Your task to perform on an android device: Open calendar and show me the third week of next month Image 0: 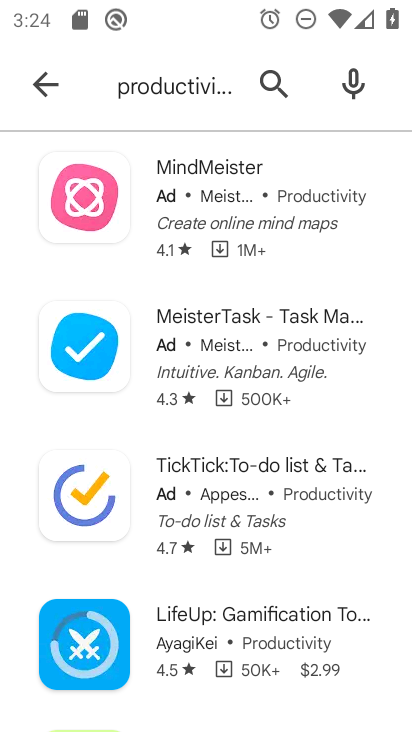
Step 0: press home button
Your task to perform on an android device: Open calendar and show me the third week of next month Image 1: 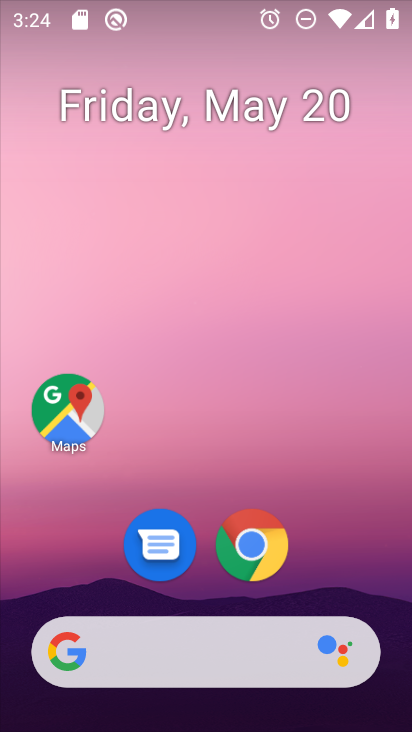
Step 1: click (197, 113)
Your task to perform on an android device: Open calendar and show me the third week of next month Image 2: 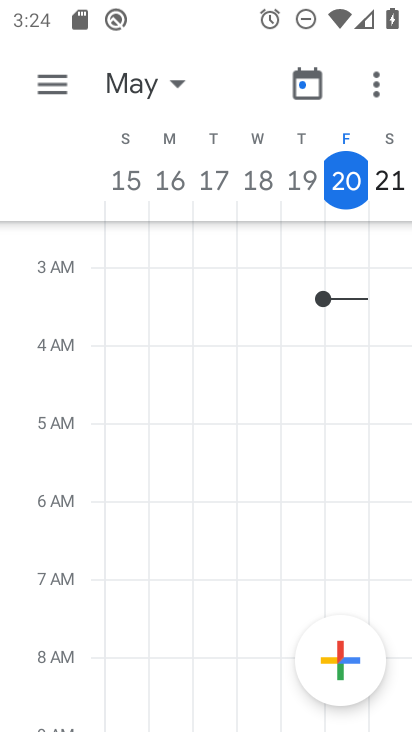
Step 2: click (274, 113)
Your task to perform on an android device: Open calendar and show me the third week of next month Image 3: 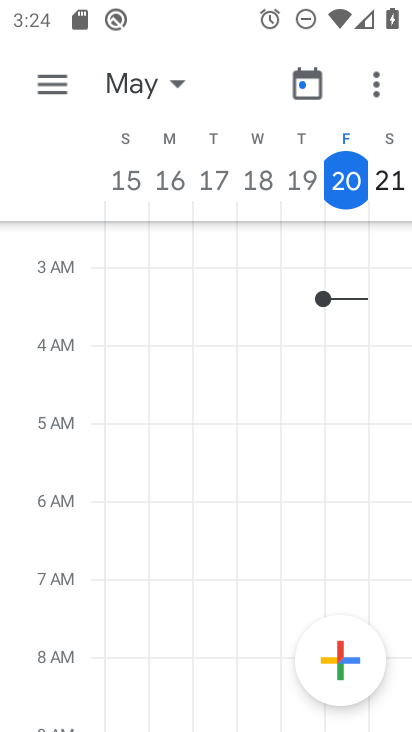
Step 3: click (165, 87)
Your task to perform on an android device: Open calendar and show me the third week of next month Image 4: 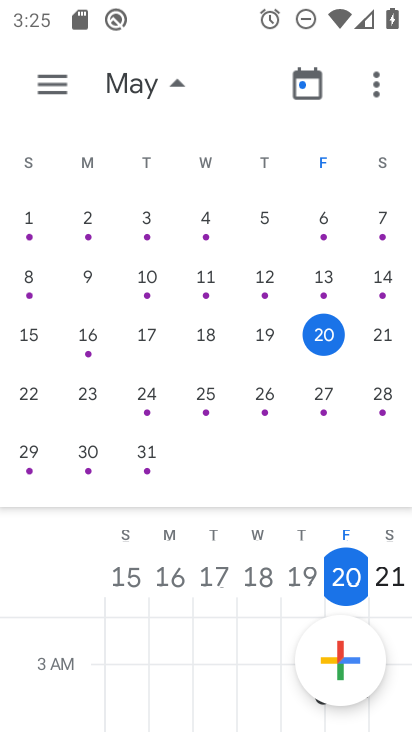
Step 4: drag from (368, 396) to (42, 360)
Your task to perform on an android device: Open calendar and show me the third week of next month Image 5: 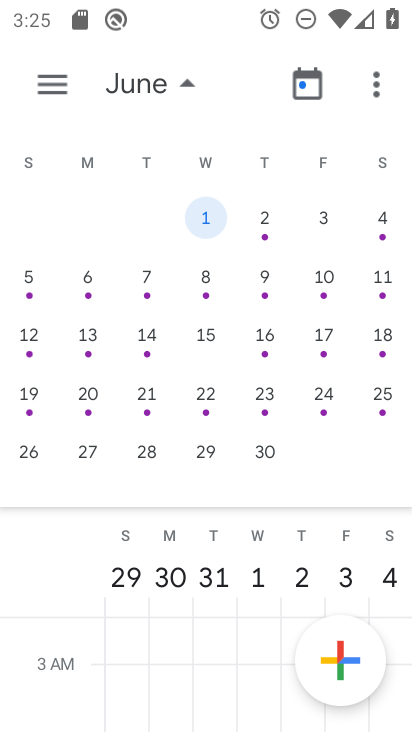
Step 5: click (209, 336)
Your task to perform on an android device: Open calendar and show me the third week of next month Image 6: 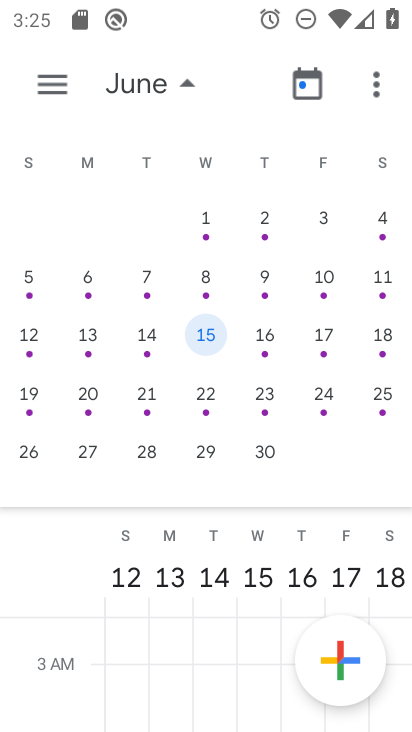
Step 6: click (60, 85)
Your task to perform on an android device: Open calendar and show me the third week of next month Image 7: 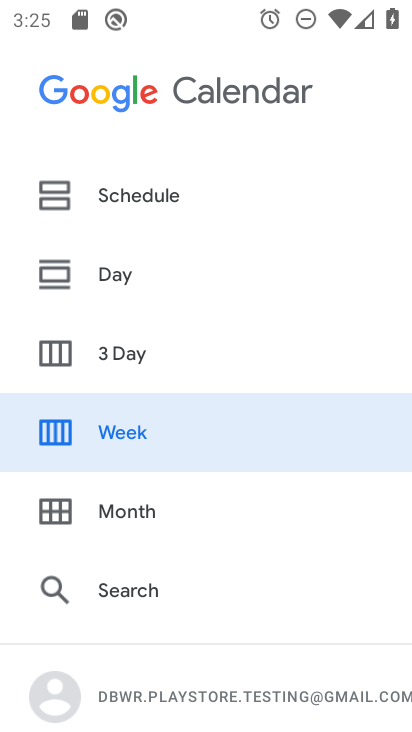
Step 7: drag from (152, 639) to (183, 192)
Your task to perform on an android device: Open calendar and show me the third week of next month Image 8: 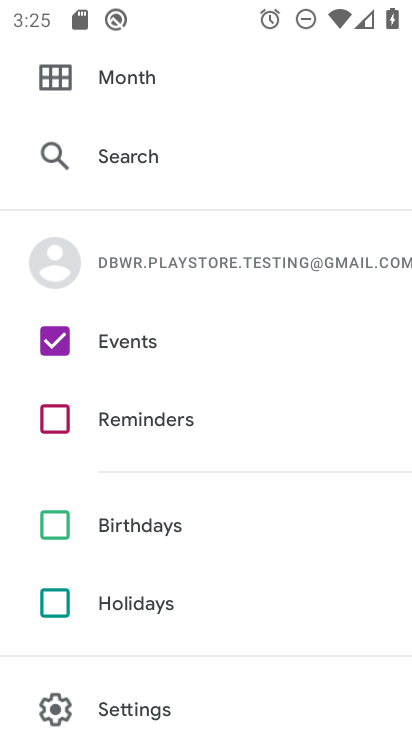
Step 8: drag from (192, 145) to (207, 573)
Your task to perform on an android device: Open calendar and show me the third week of next month Image 9: 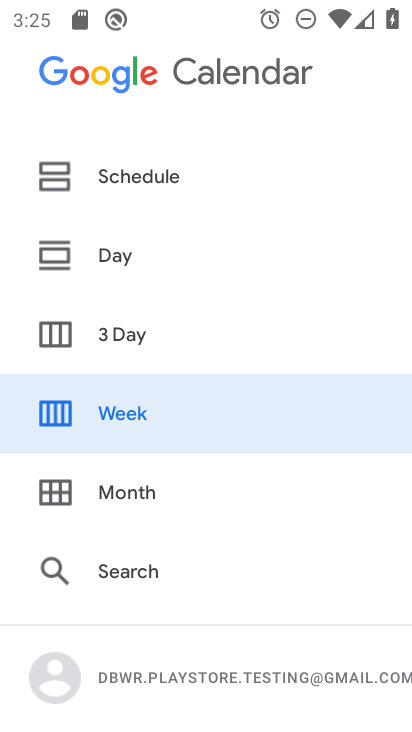
Step 9: click (168, 401)
Your task to perform on an android device: Open calendar and show me the third week of next month Image 10: 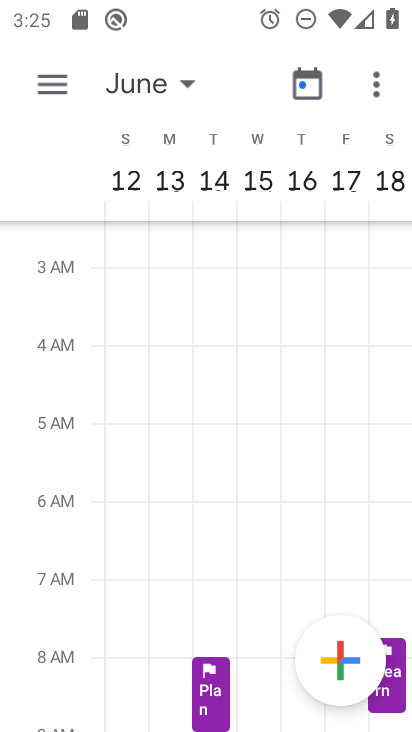
Step 10: task complete